Your task to perform on an android device: Check the weather Image 0: 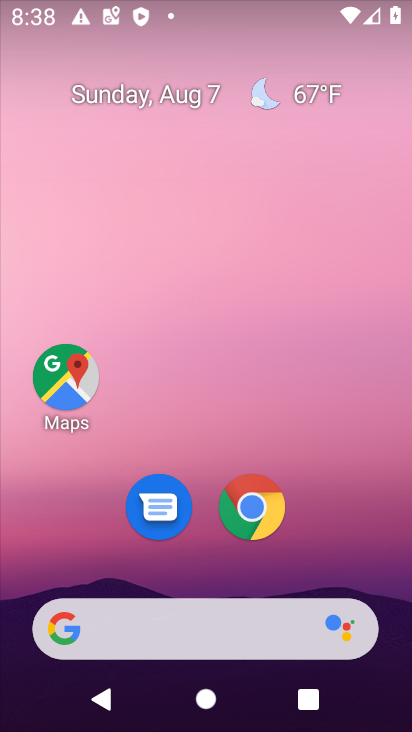
Step 0: click (164, 633)
Your task to perform on an android device: Check the weather Image 1: 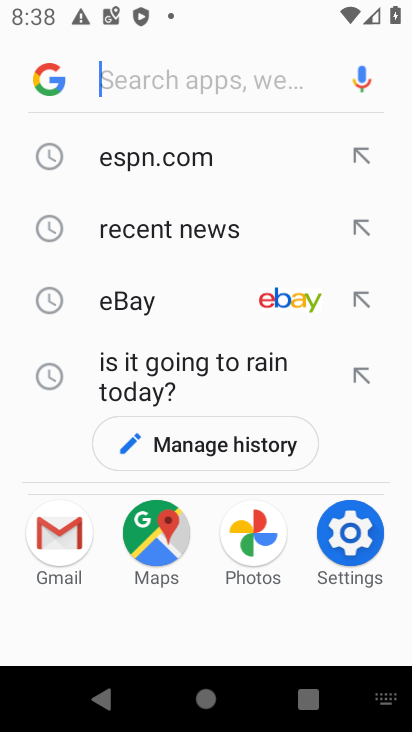
Step 1: type "weather"
Your task to perform on an android device: Check the weather Image 2: 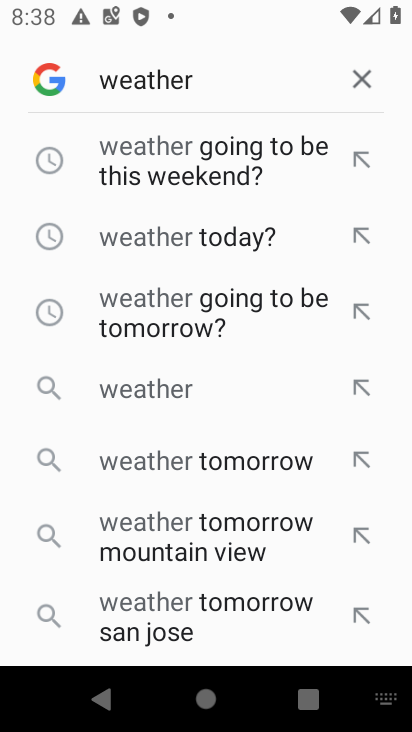
Step 2: click (187, 385)
Your task to perform on an android device: Check the weather Image 3: 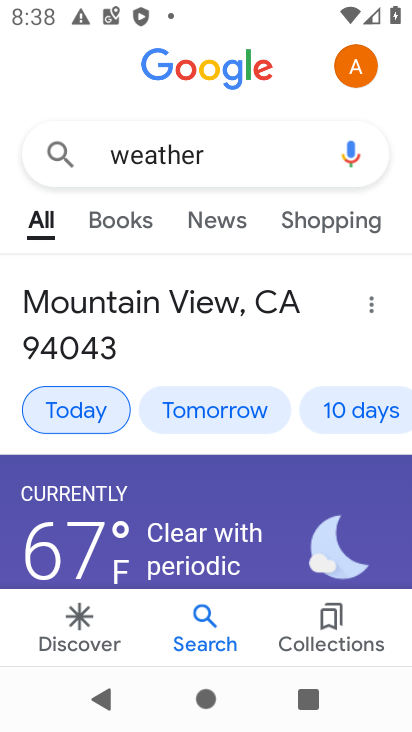
Step 3: task complete